Your task to perform on an android device: check android version Image 0: 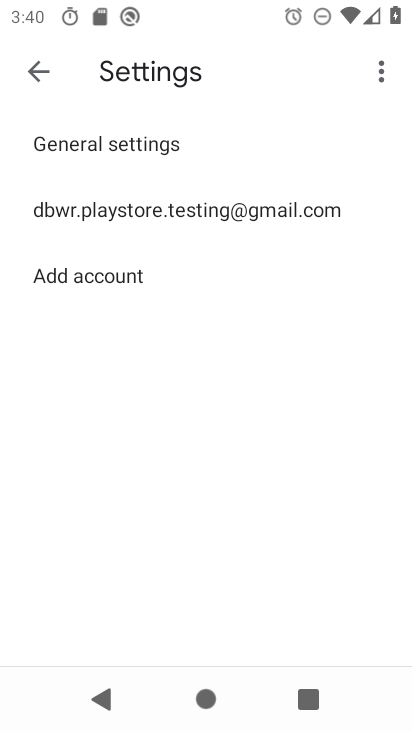
Step 0: press home button
Your task to perform on an android device: check android version Image 1: 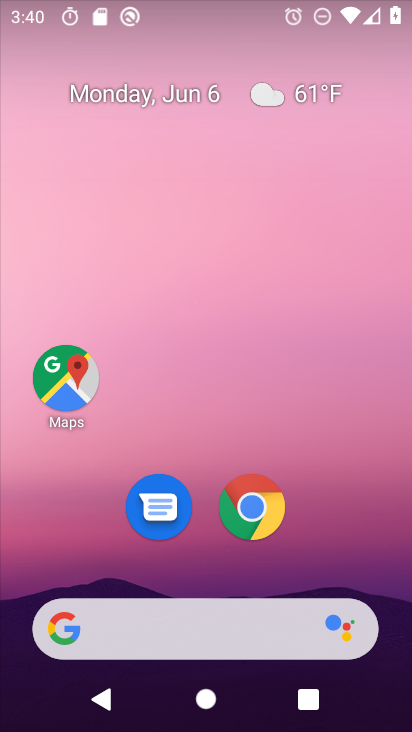
Step 1: drag from (194, 581) to (201, 221)
Your task to perform on an android device: check android version Image 2: 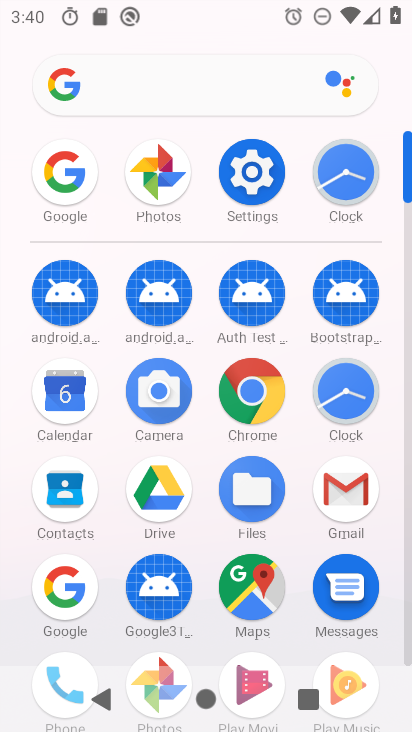
Step 2: click (239, 180)
Your task to perform on an android device: check android version Image 3: 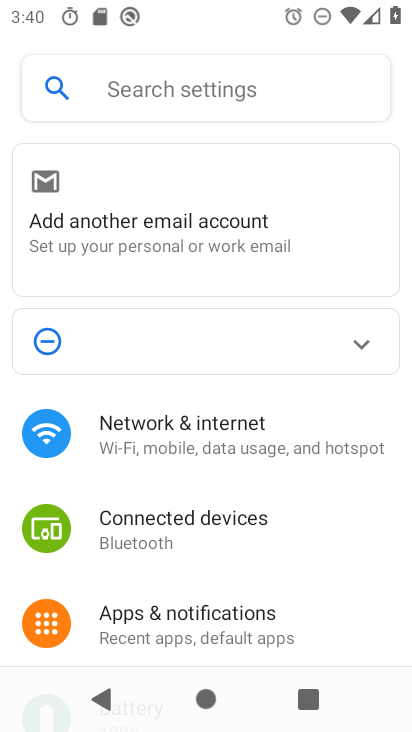
Step 3: drag from (224, 615) to (233, 270)
Your task to perform on an android device: check android version Image 4: 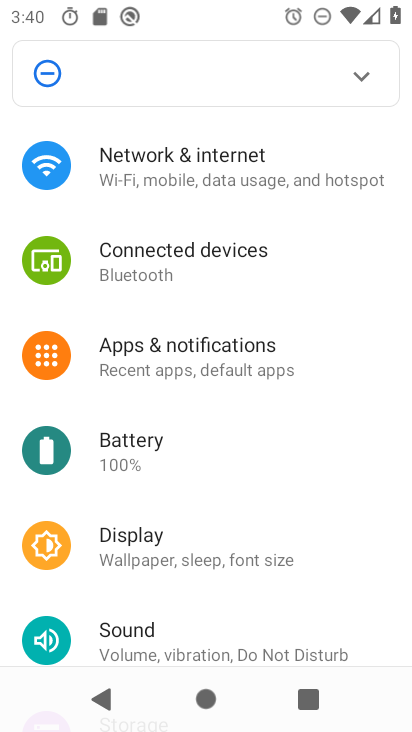
Step 4: drag from (244, 559) to (260, 308)
Your task to perform on an android device: check android version Image 5: 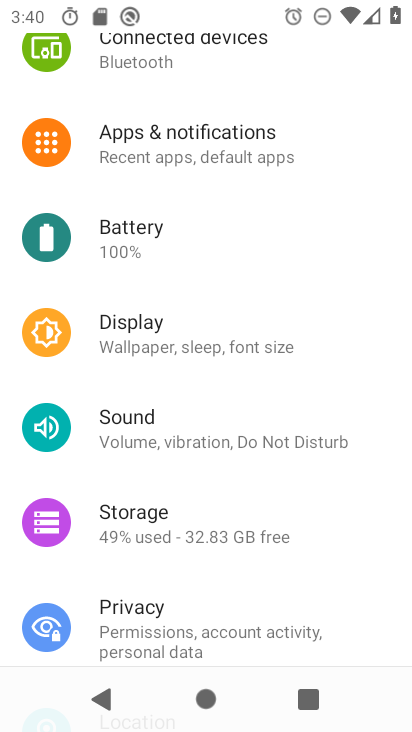
Step 5: drag from (256, 542) to (269, 272)
Your task to perform on an android device: check android version Image 6: 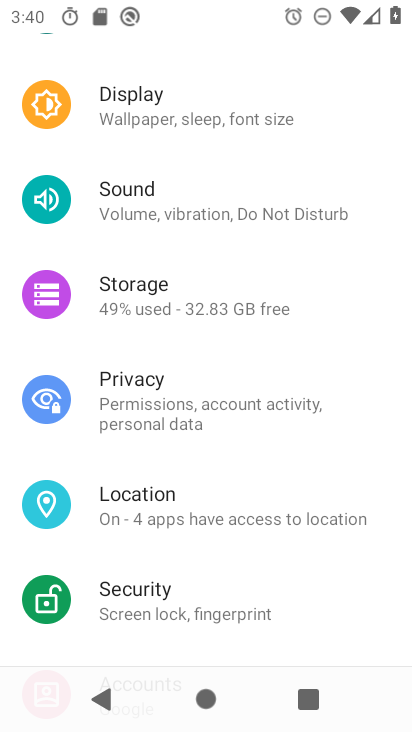
Step 6: drag from (235, 564) to (246, 252)
Your task to perform on an android device: check android version Image 7: 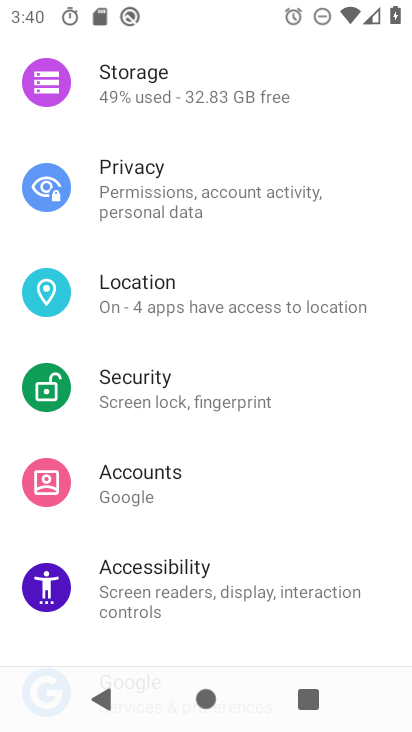
Step 7: drag from (234, 558) to (238, 261)
Your task to perform on an android device: check android version Image 8: 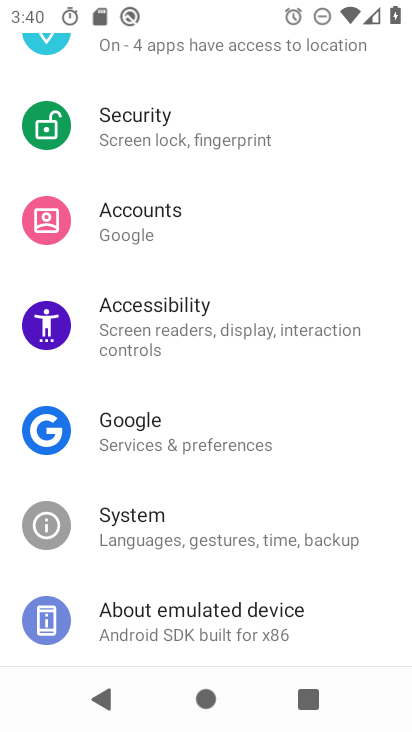
Step 8: drag from (238, 564) to (249, 300)
Your task to perform on an android device: check android version Image 9: 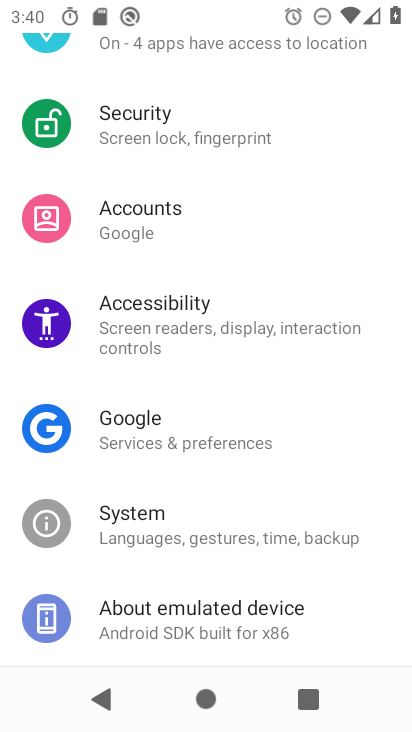
Step 9: click (181, 618)
Your task to perform on an android device: check android version Image 10: 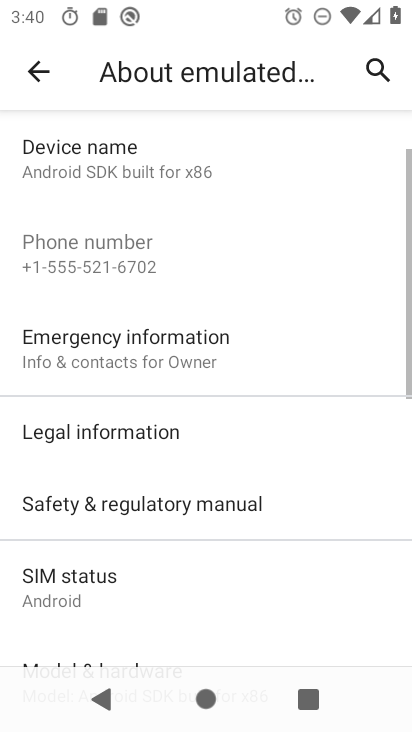
Step 10: drag from (197, 567) to (237, 299)
Your task to perform on an android device: check android version Image 11: 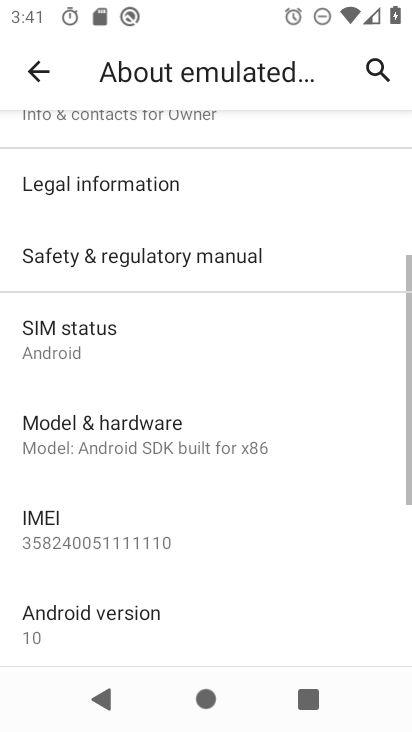
Step 11: click (124, 627)
Your task to perform on an android device: check android version Image 12: 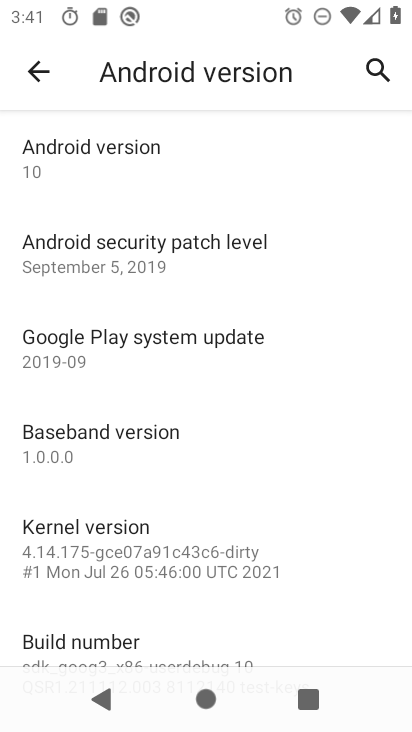
Step 12: click (199, 528)
Your task to perform on an android device: check android version Image 13: 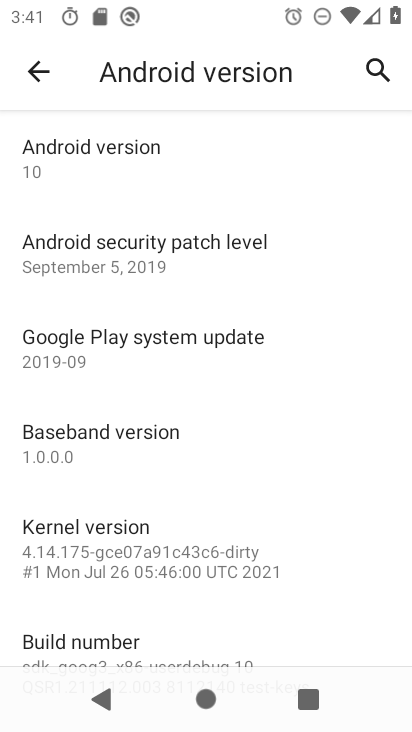
Step 13: click (112, 175)
Your task to perform on an android device: check android version Image 14: 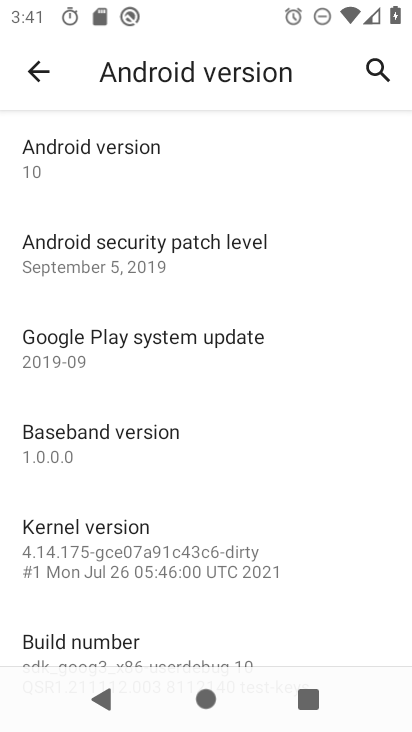
Step 14: click (112, 175)
Your task to perform on an android device: check android version Image 15: 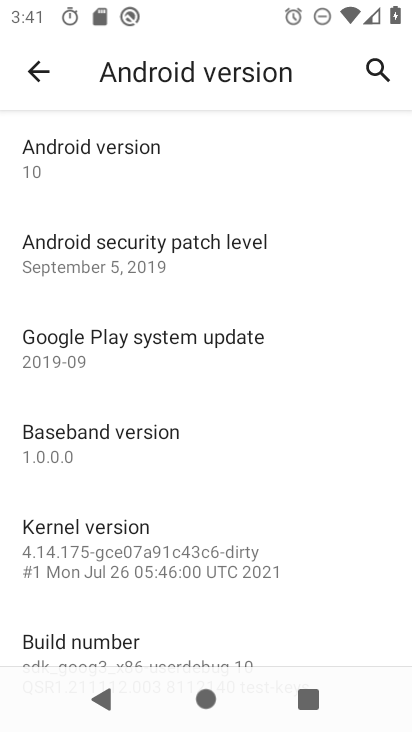
Step 15: click (176, 150)
Your task to perform on an android device: check android version Image 16: 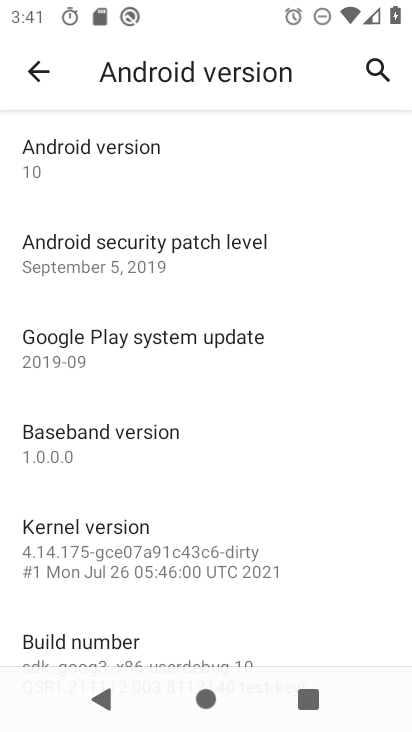
Step 16: task complete